Your task to perform on an android device: find which apps use the phone's location Image 0: 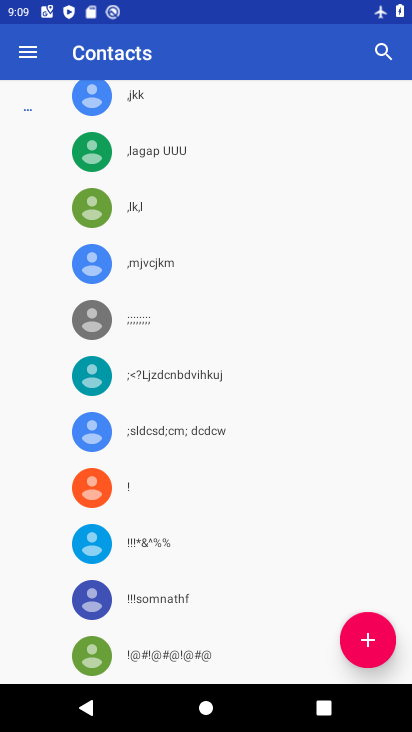
Step 0: press home button
Your task to perform on an android device: find which apps use the phone's location Image 1: 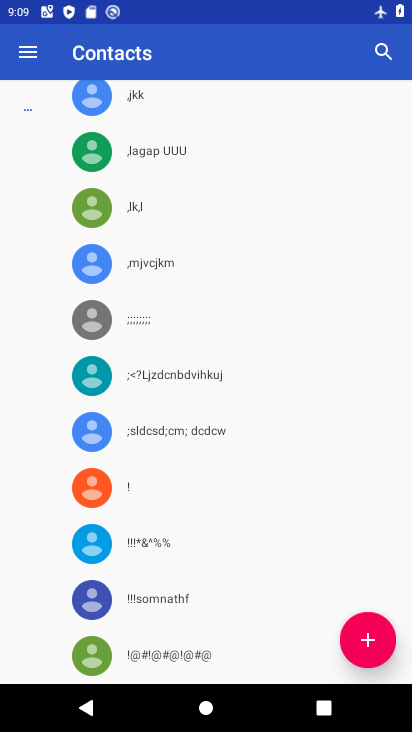
Step 1: press home button
Your task to perform on an android device: find which apps use the phone's location Image 2: 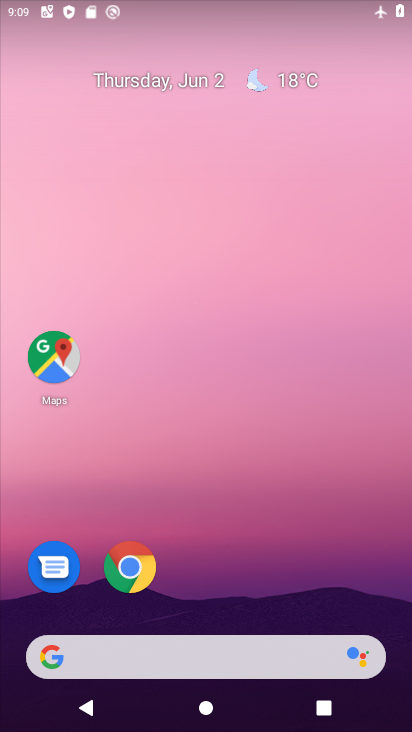
Step 2: drag from (211, 605) to (236, 47)
Your task to perform on an android device: find which apps use the phone's location Image 3: 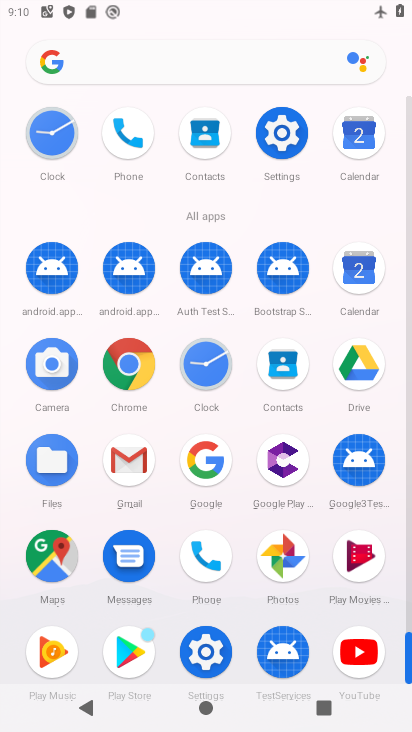
Step 3: click (279, 126)
Your task to perform on an android device: find which apps use the phone's location Image 4: 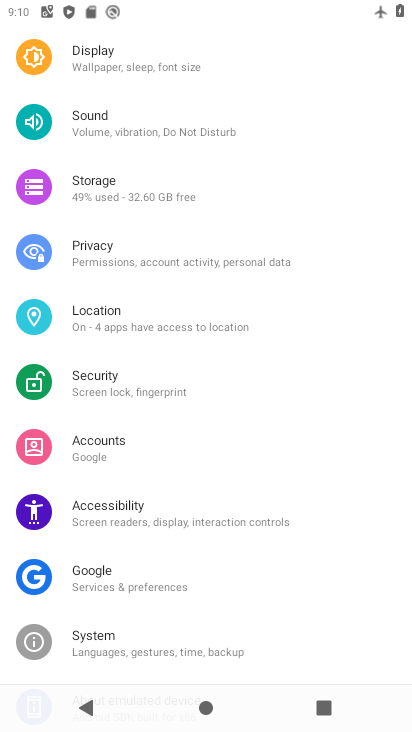
Step 4: click (139, 310)
Your task to perform on an android device: find which apps use the phone's location Image 5: 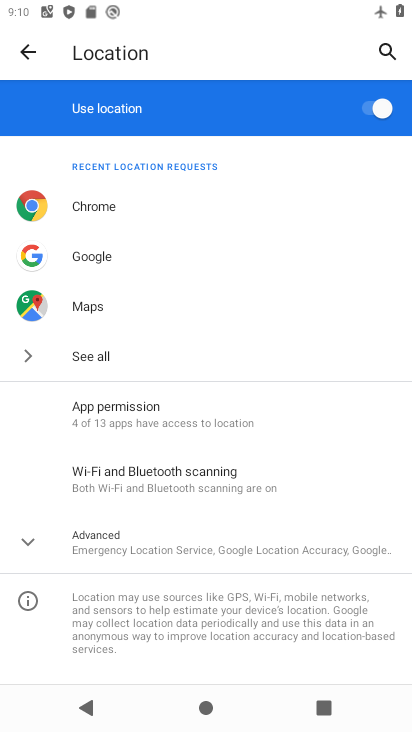
Step 5: click (176, 407)
Your task to perform on an android device: find which apps use the phone's location Image 6: 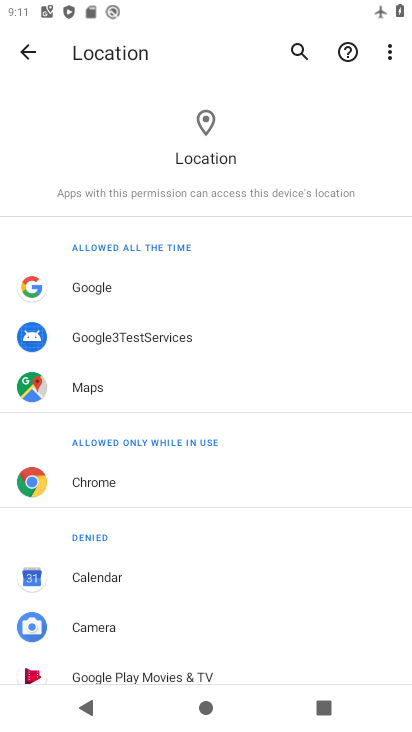
Step 6: task complete